Your task to perform on an android device: Open Google Maps Image 0: 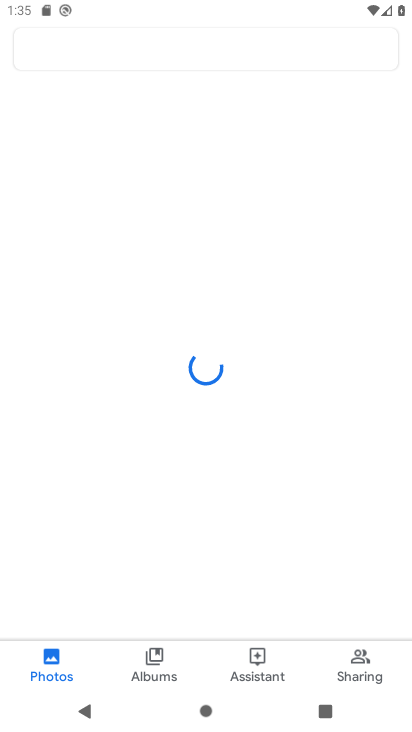
Step 0: press back button
Your task to perform on an android device: Open Google Maps Image 1: 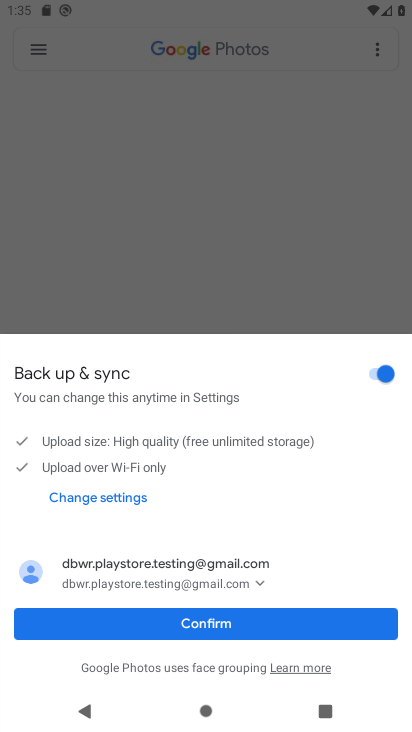
Step 1: press home button
Your task to perform on an android device: Open Google Maps Image 2: 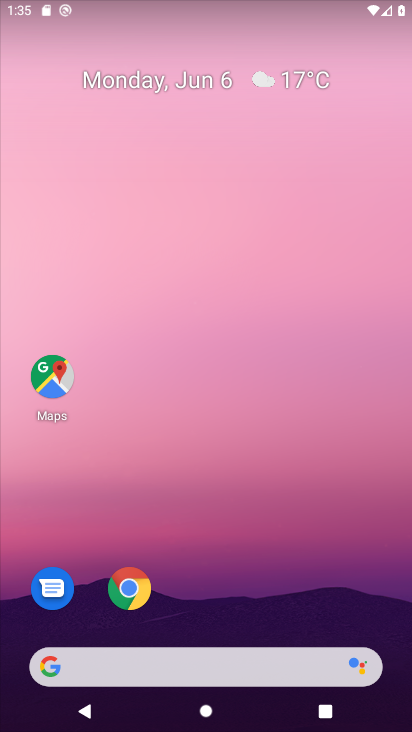
Step 2: click (47, 378)
Your task to perform on an android device: Open Google Maps Image 3: 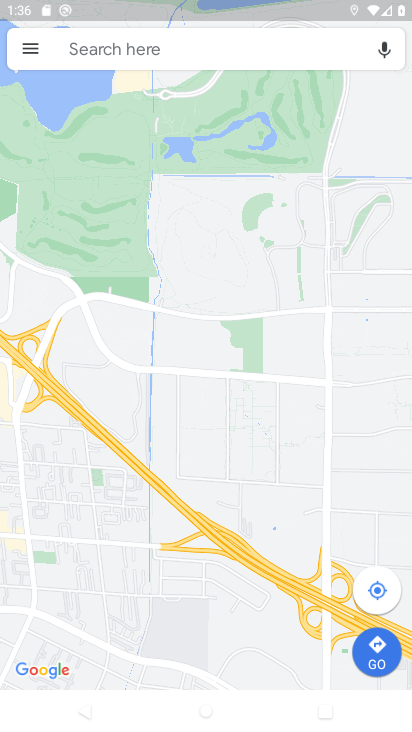
Step 3: task complete